Your task to perform on an android device: Go to Google Image 0: 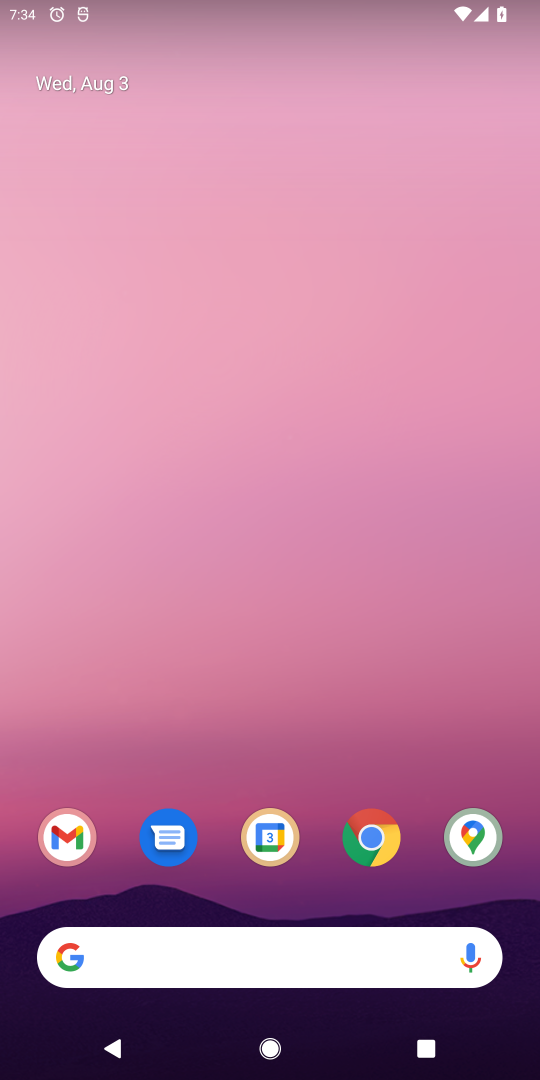
Step 0: press home button
Your task to perform on an android device: Go to Google Image 1: 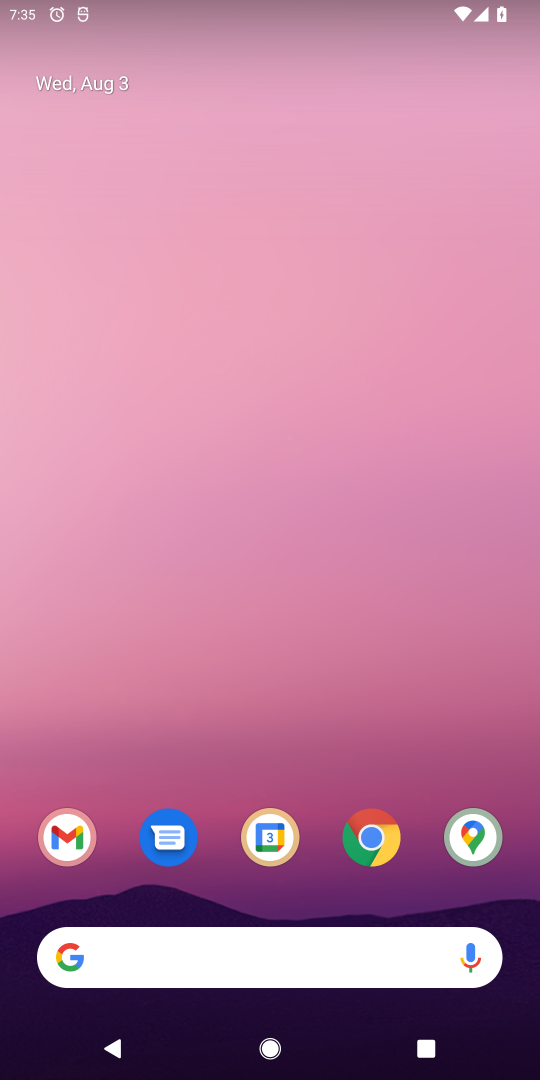
Step 1: click (60, 946)
Your task to perform on an android device: Go to Google Image 2: 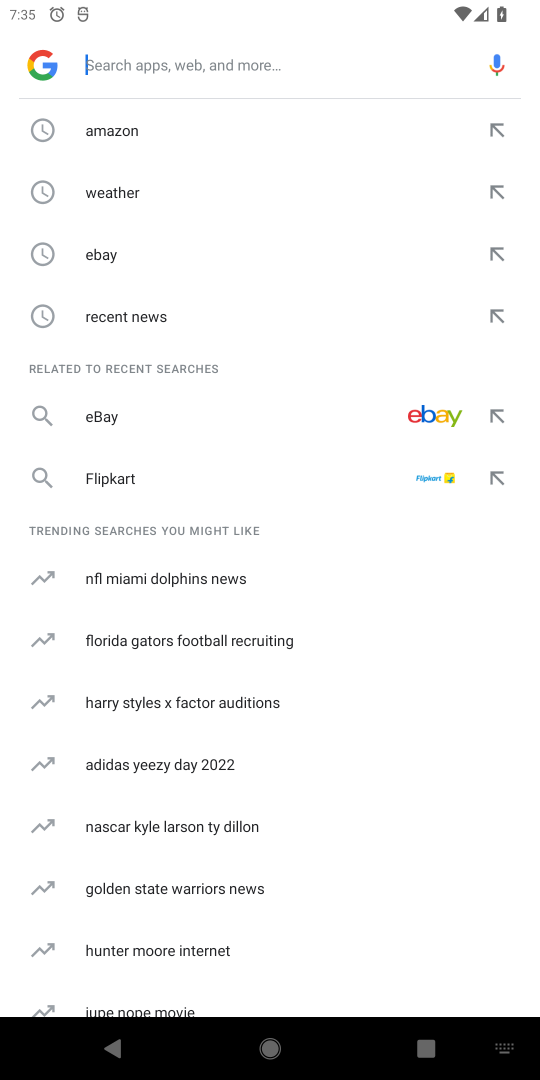
Step 2: task complete